Your task to perform on an android device: Open Youtube and go to the subscriptions tab Image 0: 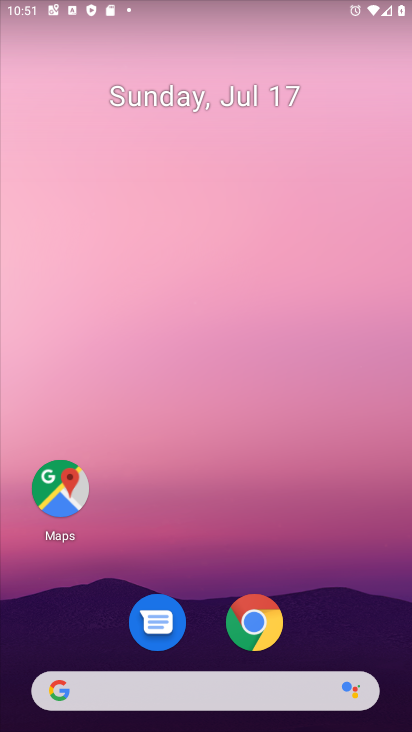
Step 0: drag from (247, 722) to (383, 608)
Your task to perform on an android device: Open Youtube and go to the subscriptions tab Image 1: 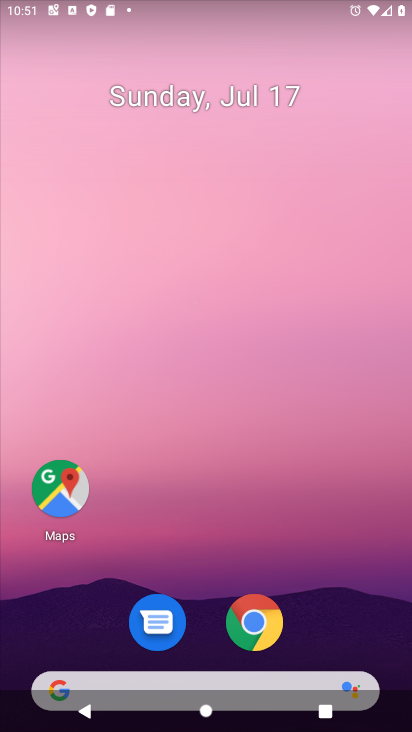
Step 1: drag from (287, 650) to (406, 276)
Your task to perform on an android device: Open Youtube and go to the subscriptions tab Image 2: 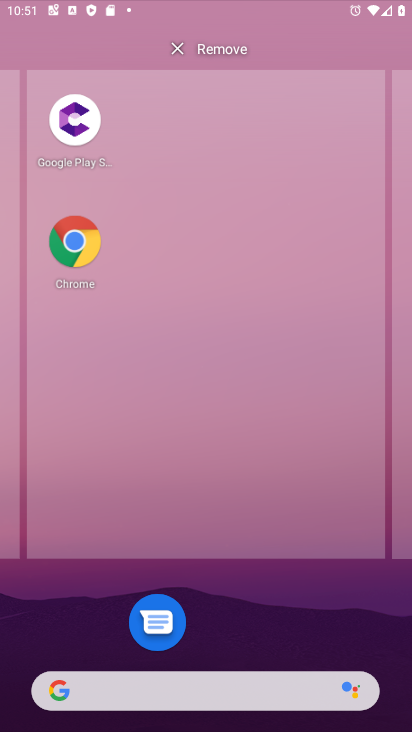
Step 2: drag from (292, 716) to (289, 8)
Your task to perform on an android device: Open Youtube and go to the subscriptions tab Image 3: 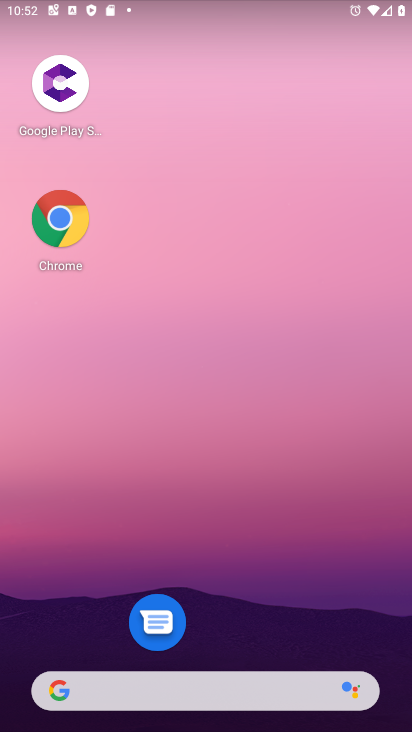
Step 3: drag from (145, 656) to (328, 25)
Your task to perform on an android device: Open Youtube and go to the subscriptions tab Image 4: 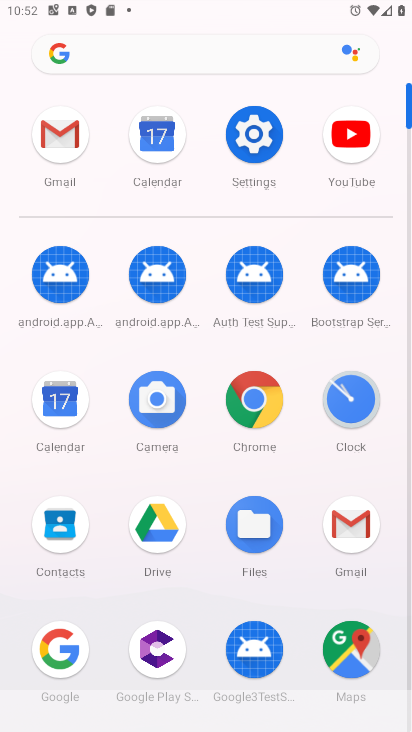
Step 4: click (335, 169)
Your task to perform on an android device: Open Youtube and go to the subscriptions tab Image 5: 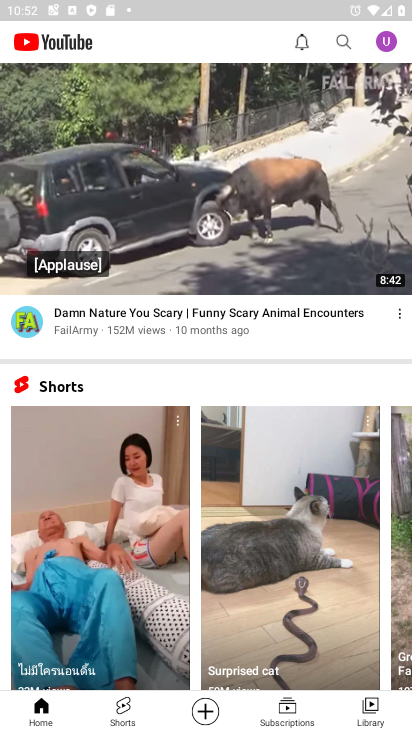
Step 5: click (306, 703)
Your task to perform on an android device: Open Youtube and go to the subscriptions tab Image 6: 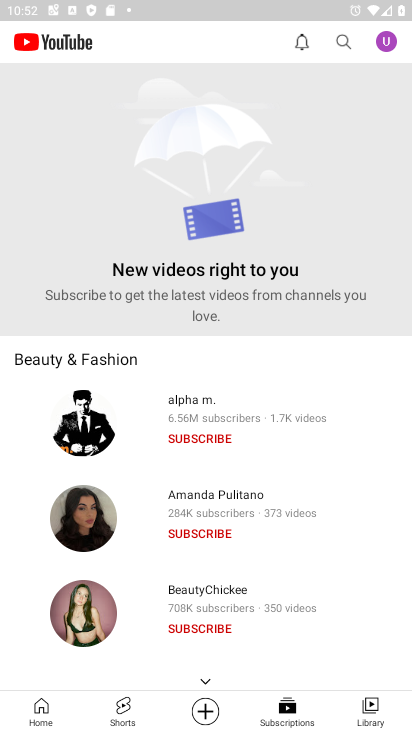
Step 6: task complete